Your task to perform on an android device: toggle show notifications on the lock screen Image 0: 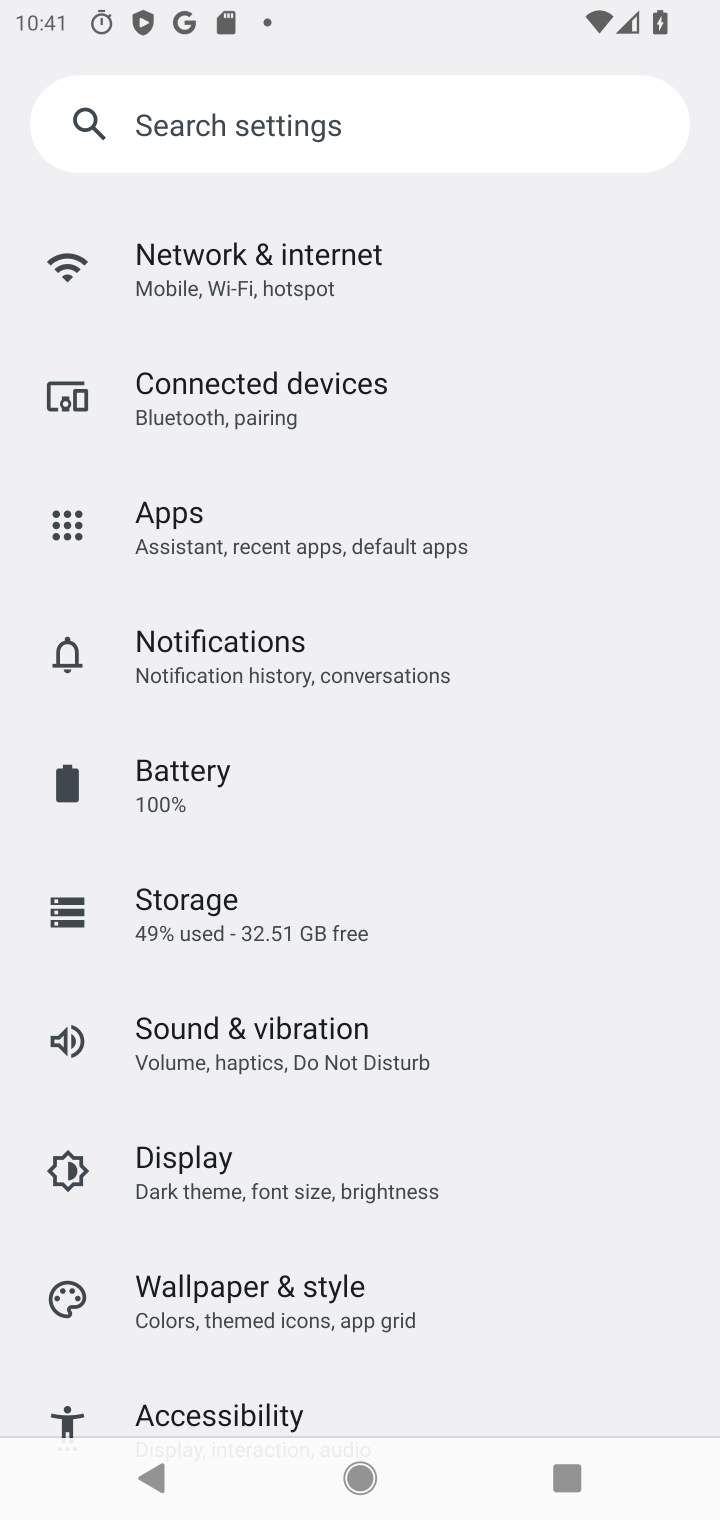
Step 0: click (308, 665)
Your task to perform on an android device: toggle show notifications on the lock screen Image 1: 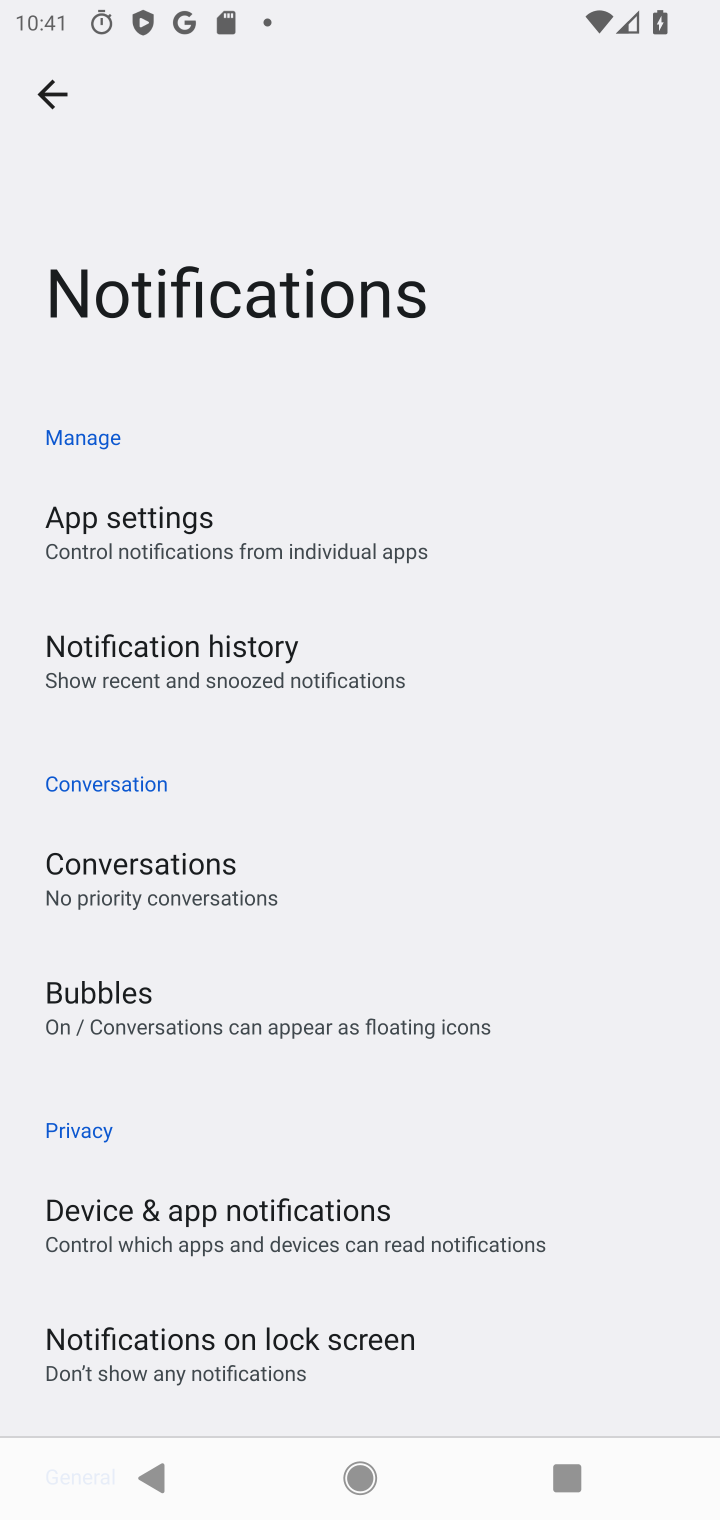
Step 1: click (226, 1343)
Your task to perform on an android device: toggle show notifications on the lock screen Image 2: 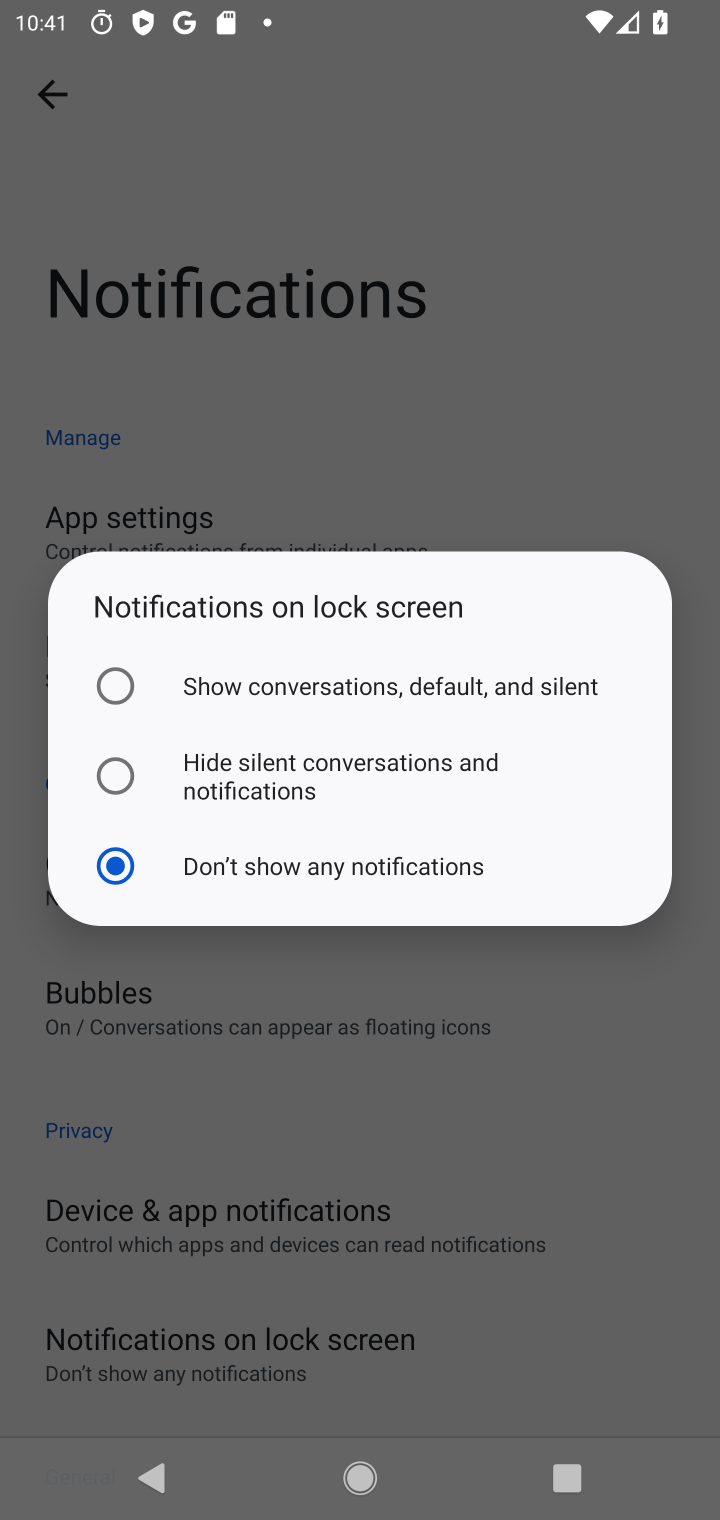
Step 2: click (118, 682)
Your task to perform on an android device: toggle show notifications on the lock screen Image 3: 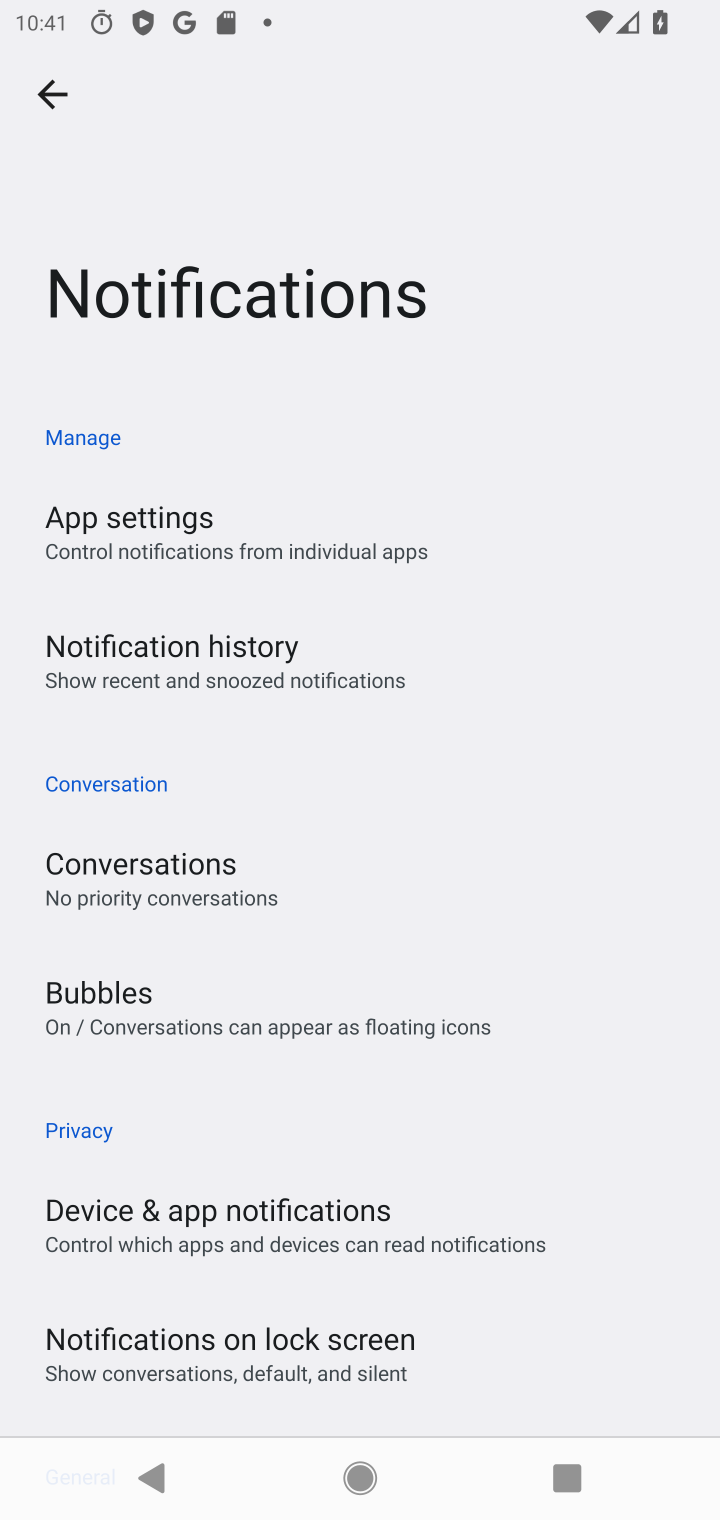
Step 3: task complete